Your task to perform on an android device: turn on airplane mode Image 0: 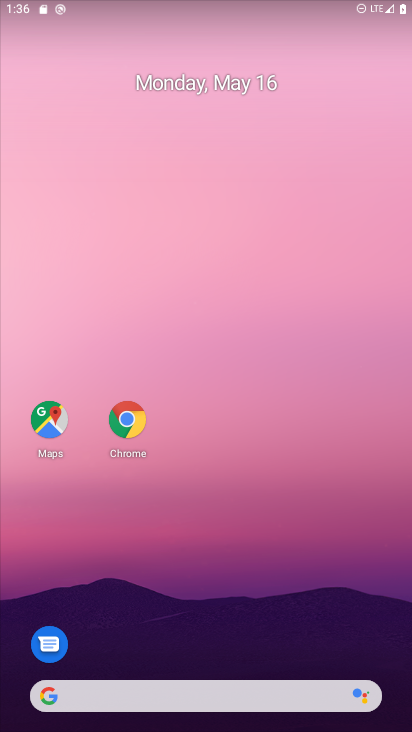
Step 0: drag from (236, 649) to (217, 104)
Your task to perform on an android device: turn on airplane mode Image 1: 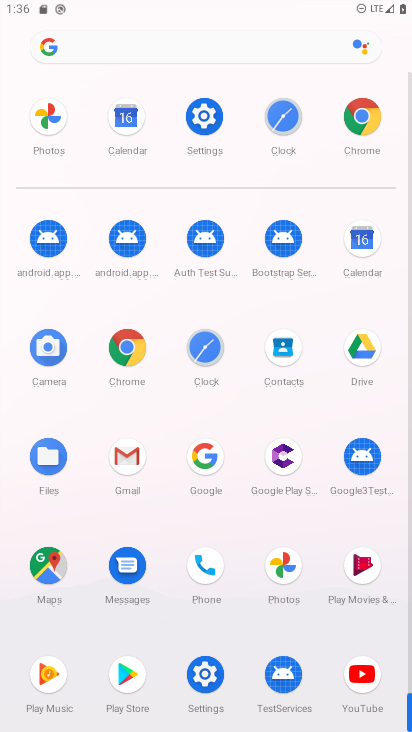
Step 1: click (214, 109)
Your task to perform on an android device: turn on airplane mode Image 2: 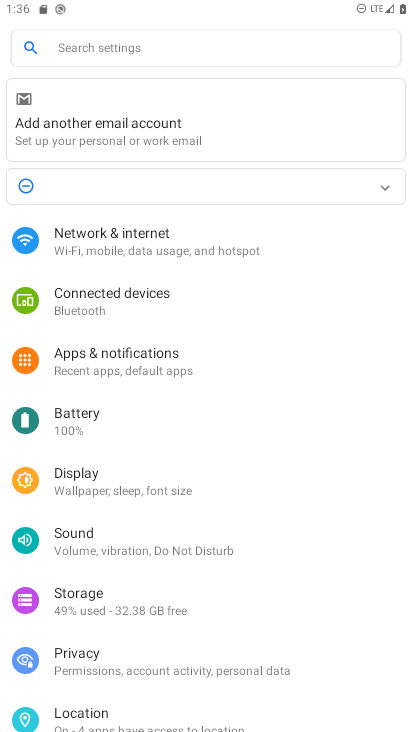
Step 2: click (178, 249)
Your task to perform on an android device: turn on airplane mode Image 3: 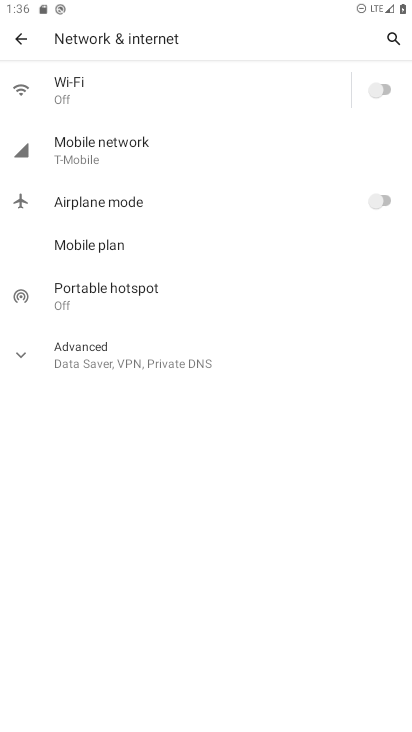
Step 3: click (114, 360)
Your task to perform on an android device: turn on airplane mode Image 4: 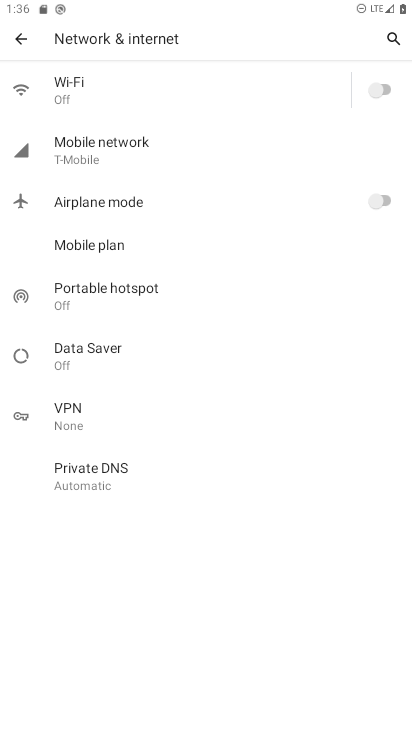
Step 4: click (198, 213)
Your task to perform on an android device: turn on airplane mode Image 5: 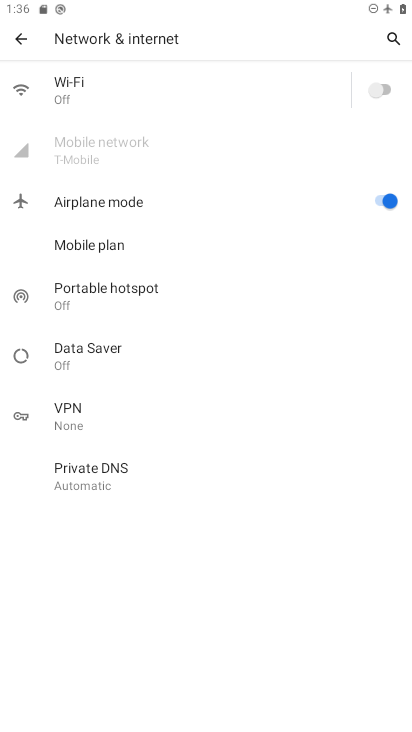
Step 5: task complete